Your task to perform on an android device: turn on translation in the chrome app Image 0: 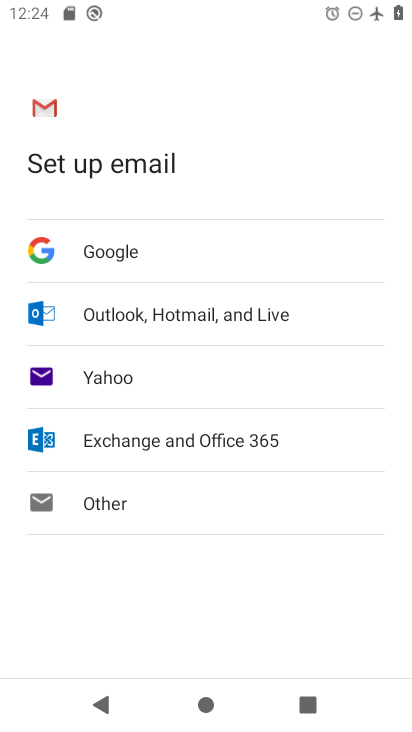
Step 0: press home button
Your task to perform on an android device: turn on translation in the chrome app Image 1: 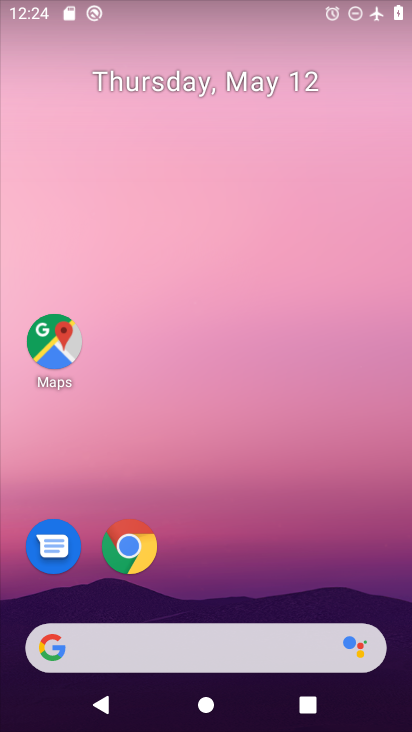
Step 1: drag from (399, 645) to (278, 77)
Your task to perform on an android device: turn on translation in the chrome app Image 2: 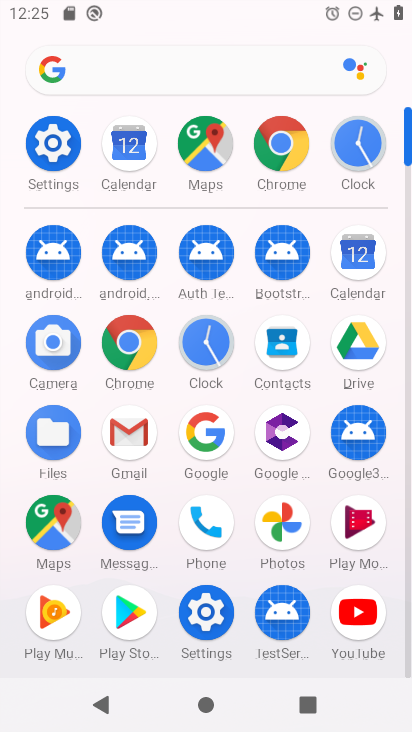
Step 2: click (142, 340)
Your task to perform on an android device: turn on translation in the chrome app Image 3: 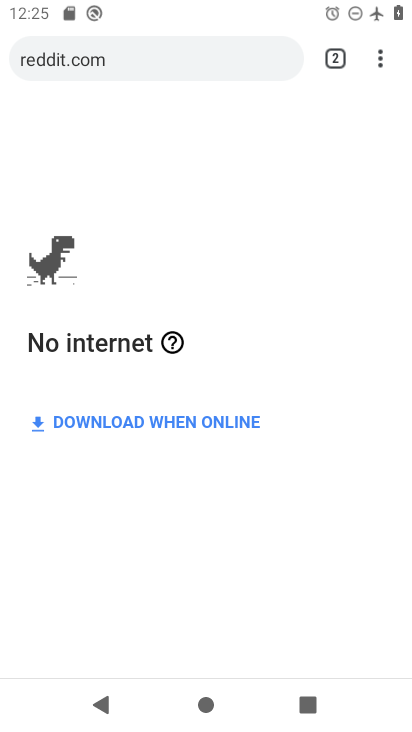
Step 3: press back button
Your task to perform on an android device: turn on translation in the chrome app Image 4: 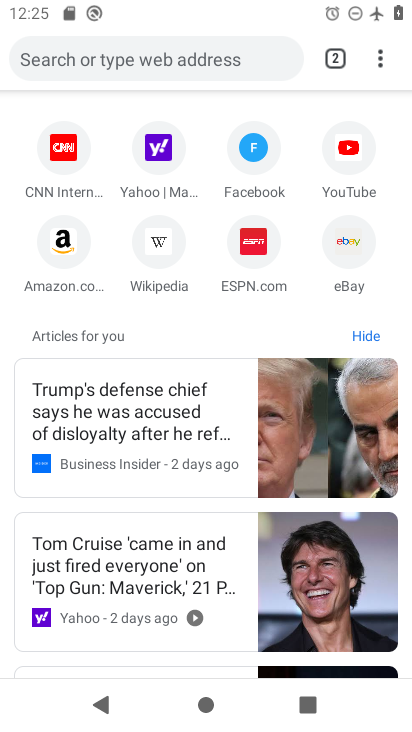
Step 4: click (382, 57)
Your task to perform on an android device: turn on translation in the chrome app Image 5: 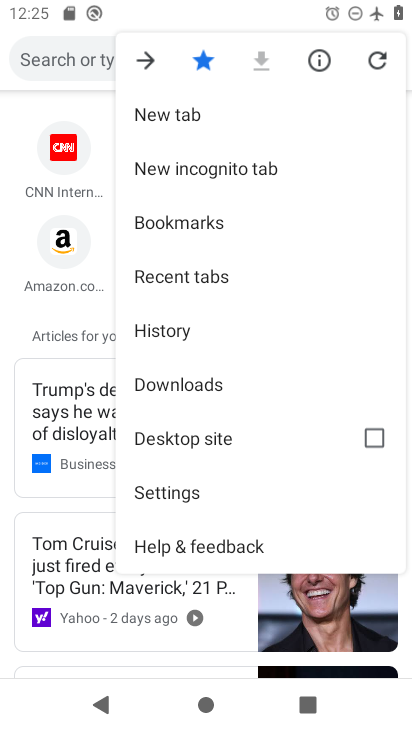
Step 5: click (189, 494)
Your task to perform on an android device: turn on translation in the chrome app Image 6: 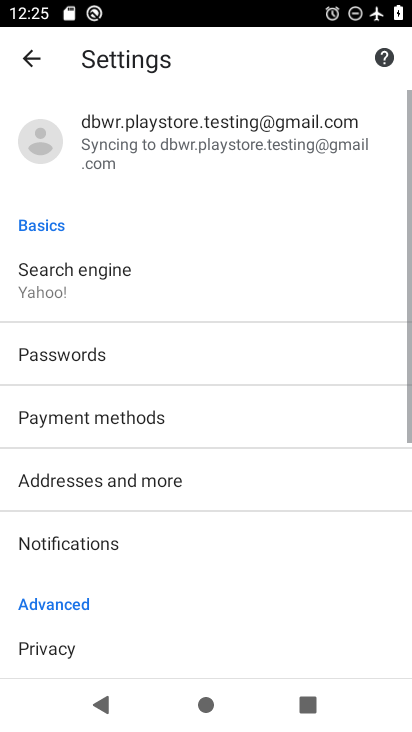
Step 6: drag from (76, 607) to (162, 159)
Your task to perform on an android device: turn on translation in the chrome app Image 7: 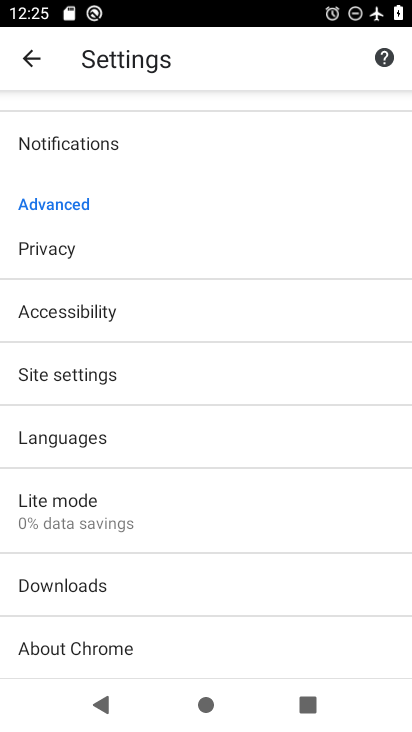
Step 7: click (177, 435)
Your task to perform on an android device: turn on translation in the chrome app Image 8: 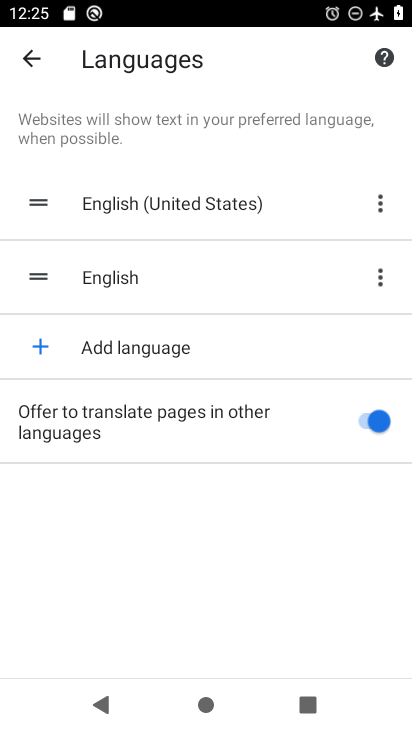
Step 8: task complete